Your task to perform on an android device: Turn on the flashlight Image 0: 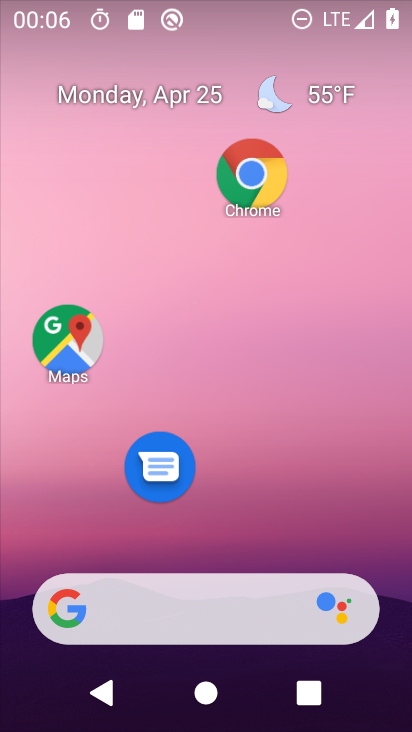
Step 0: press home button
Your task to perform on an android device: Turn on the flashlight Image 1: 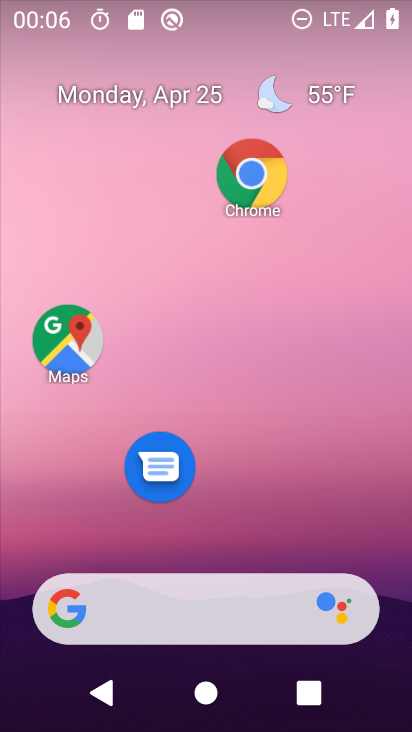
Step 1: drag from (247, 515) to (254, 37)
Your task to perform on an android device: Turn on the flashlight Image 2: 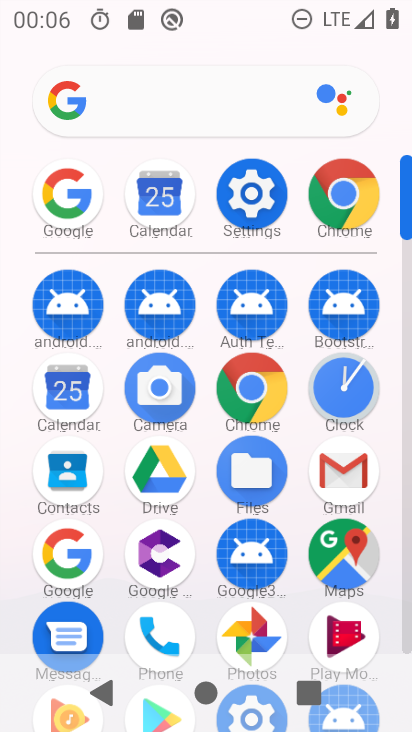
Step 2: click (244, 180)
Your task to perform on an android device: Turn on the flashlight Image 3: 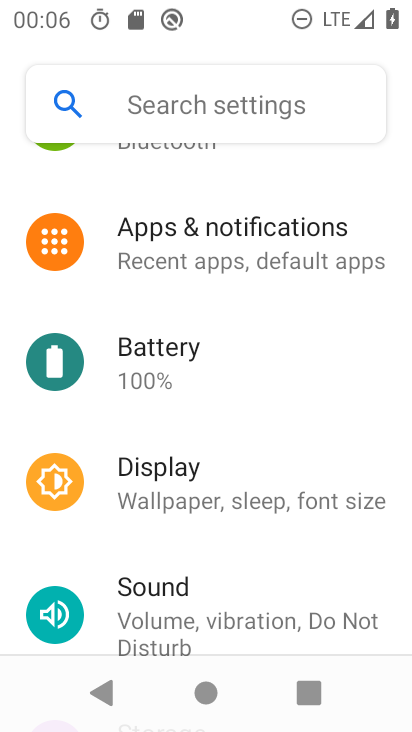
Step 3: click (215, 119)
Your task to perform on an android device: Turn on the flashlight Image 4: 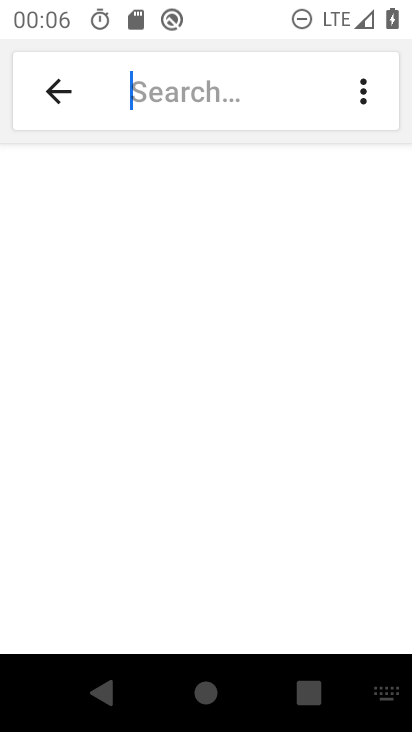
Step 4: type "flashlight"
Your task to perform on an android device: Turn on the flashlight Image 5: 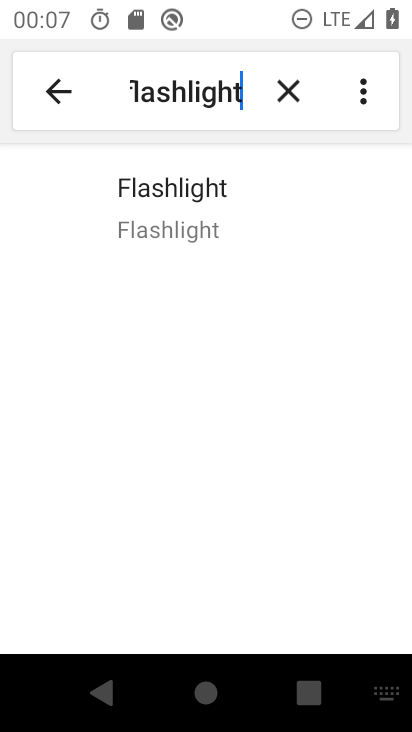
Step 5: task complete